Your task to perform on an android device: snooze an email in the gmail app Image 0: 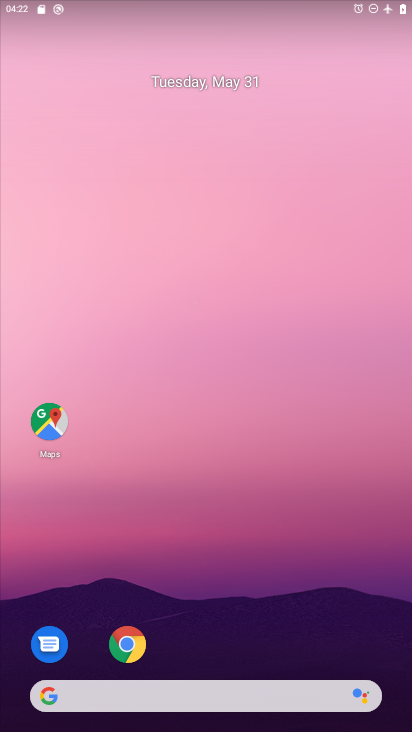
Step 0: drag from (288, 569) to (254, 56)
Your task to perform on an android device: snooze an email in the gmail app Image 1: 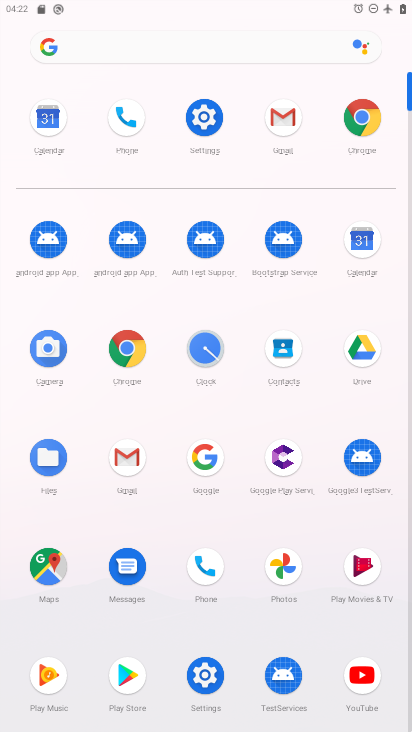
Step 1: click (283, 127)
Your task to perform on an android device: snooze an email in the gmail app Image 2: 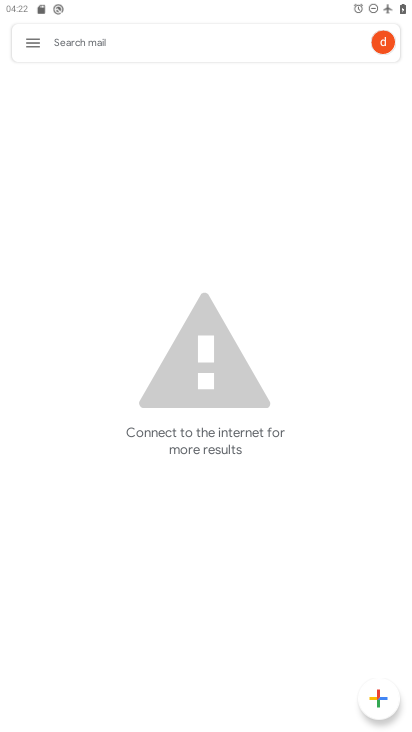
Step 2: task complete